Your task to perform on an android device: Open Youtube and go to "Your channel" Image 0: 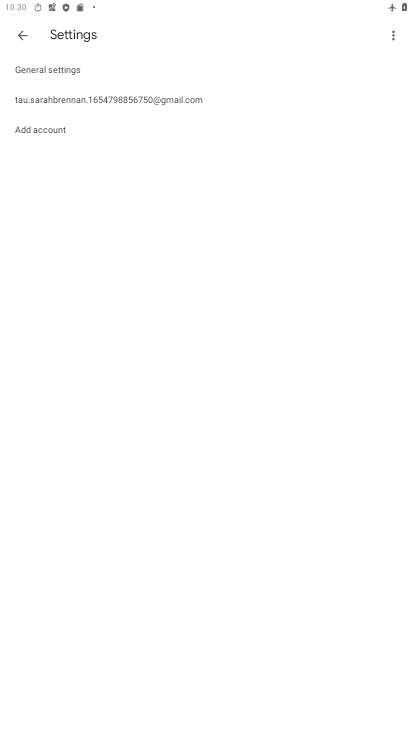
Step 0: press home button
Your task to perform on an android device: Open Youtube and go to "Your channel" Image 1: 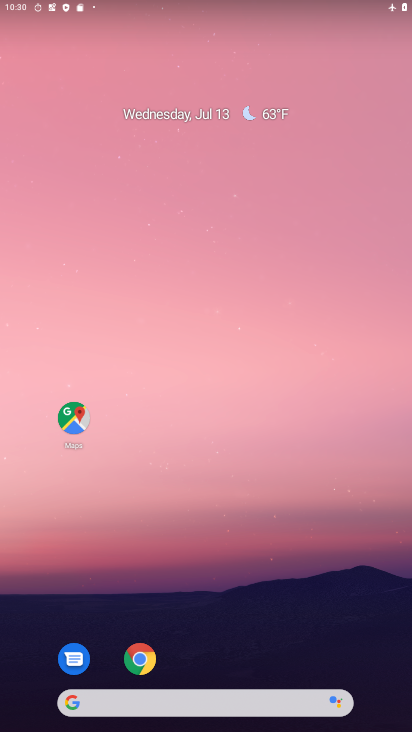
Step 1: drag from (350, 600) to (281, 137)
Your task to perform on an android device: Open Youtube and go to "Your channel" Image 2: 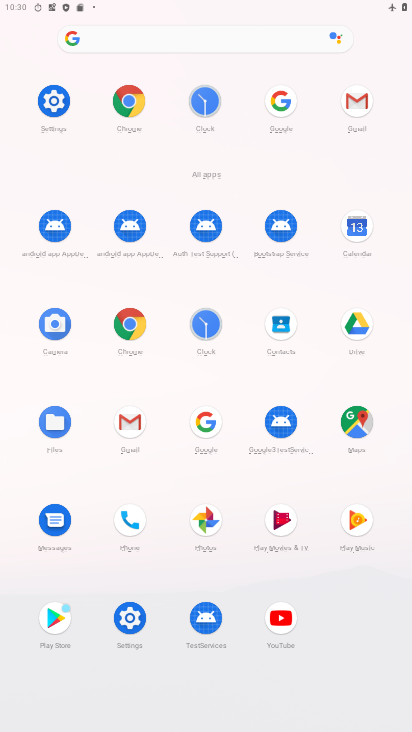
Step 2: click (286, 623)
Your task to perform on an android device: Open Youtube and go to "Your channel" Image 3: 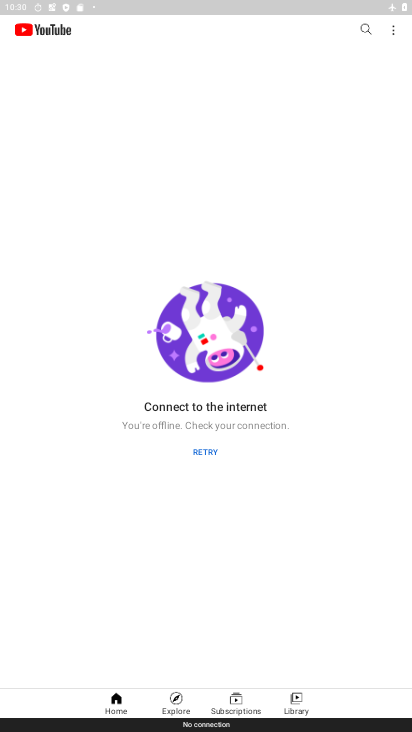
Step 3: task complete